Your task to perform on an android device: turn on the 12-hour format for clock Image 0: 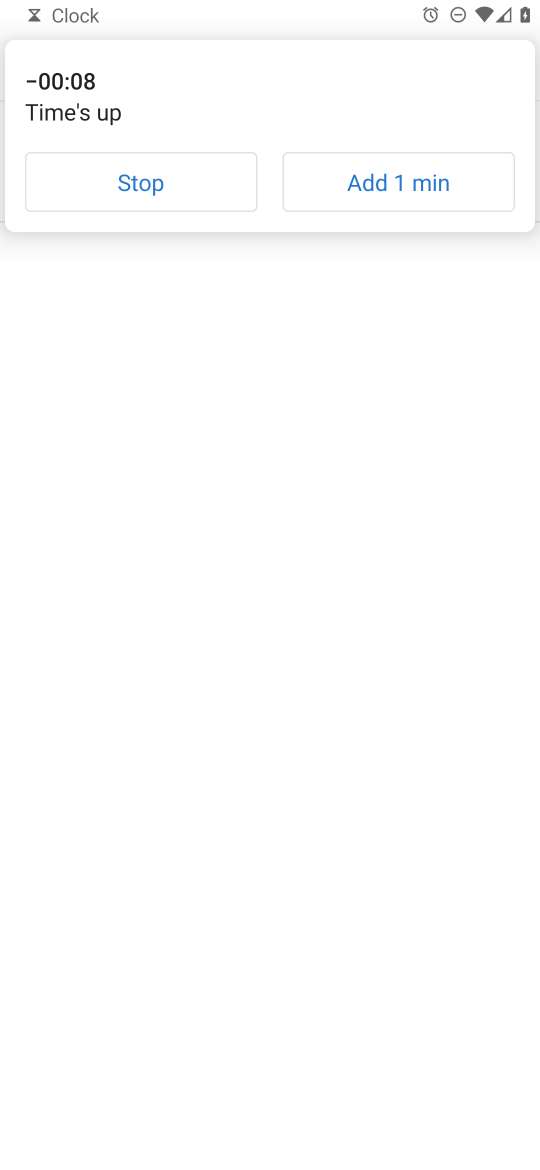
Step 0: press home button
Your task to perform on an android device: turn on the 12-hour format for clock Image 1: 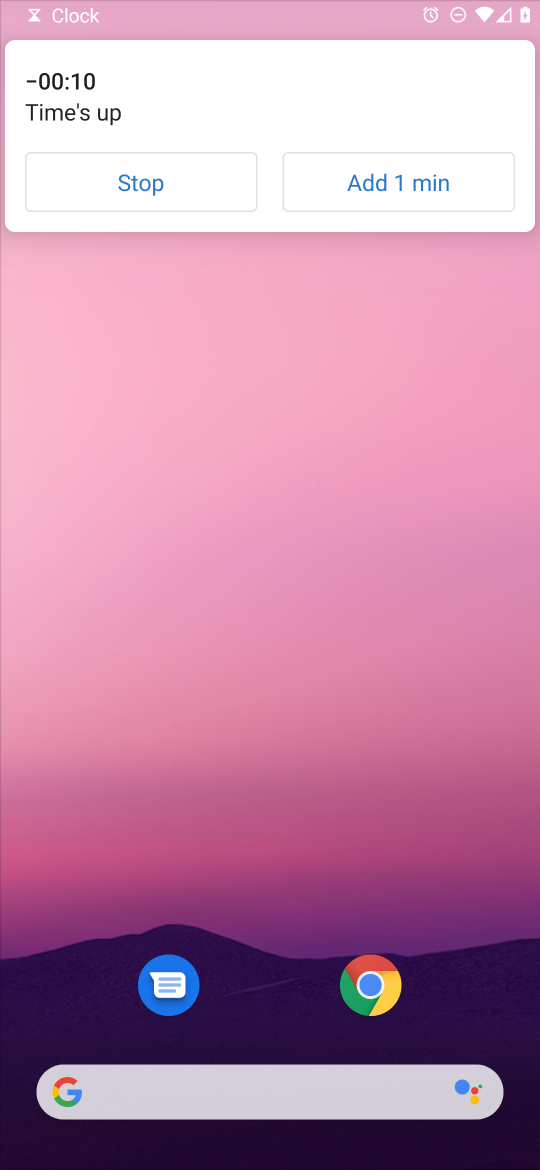
Step 1: click (182, 178)
Your task to perform on an android device: turn on the 12-hour format for clock Image 2: 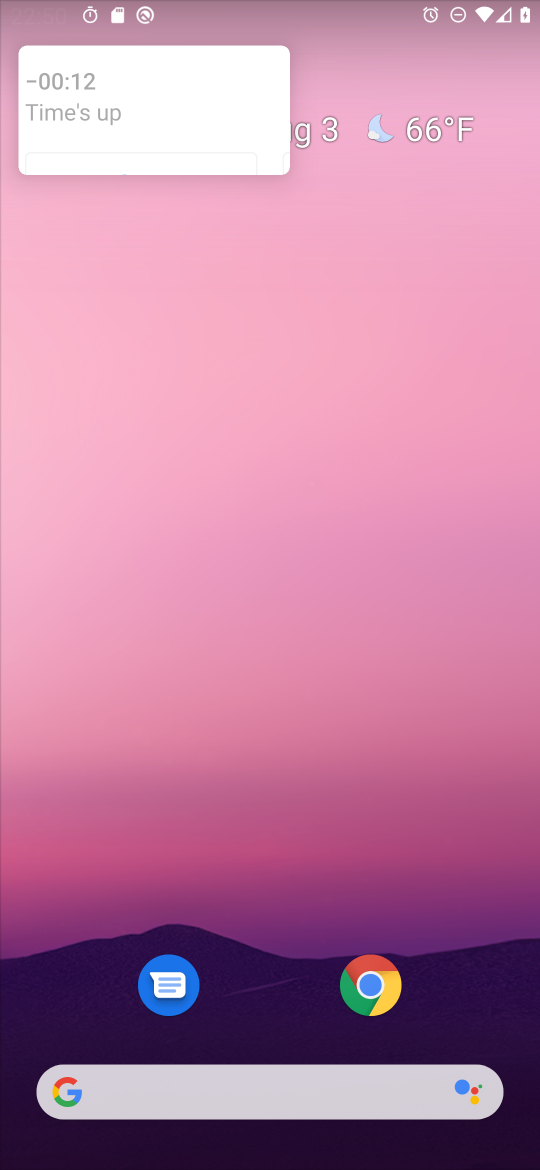
Step 2: drag from (236, 962) to (236, 196)
Your task to perform on an android device: turn on the 12-hour format for clock Image 3: 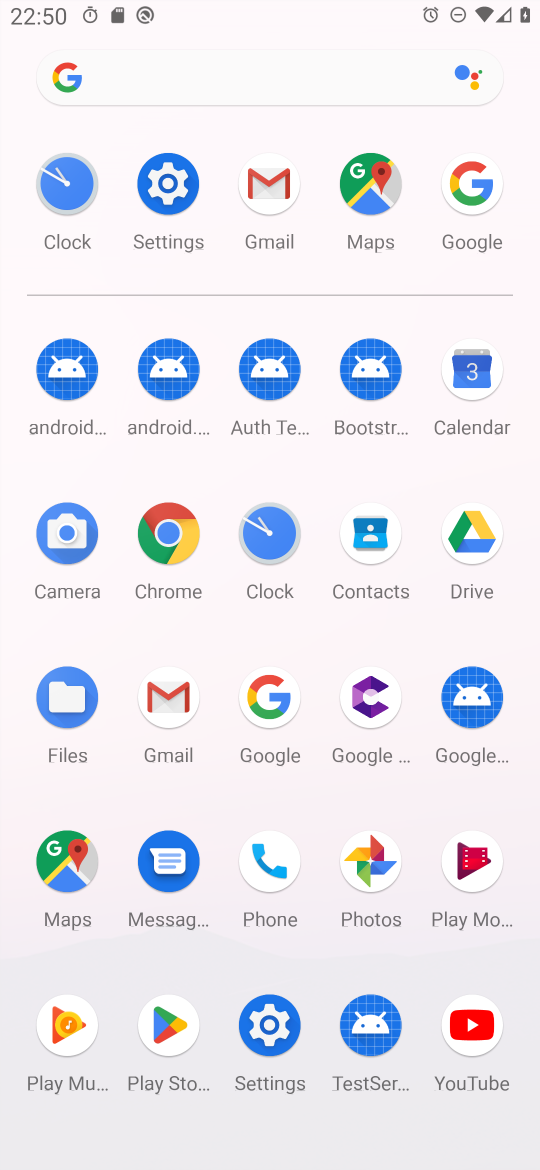
Step 3: click (60, 166)
Your task to perform on an android device: turn on the 12-hour format for clock Image 4: 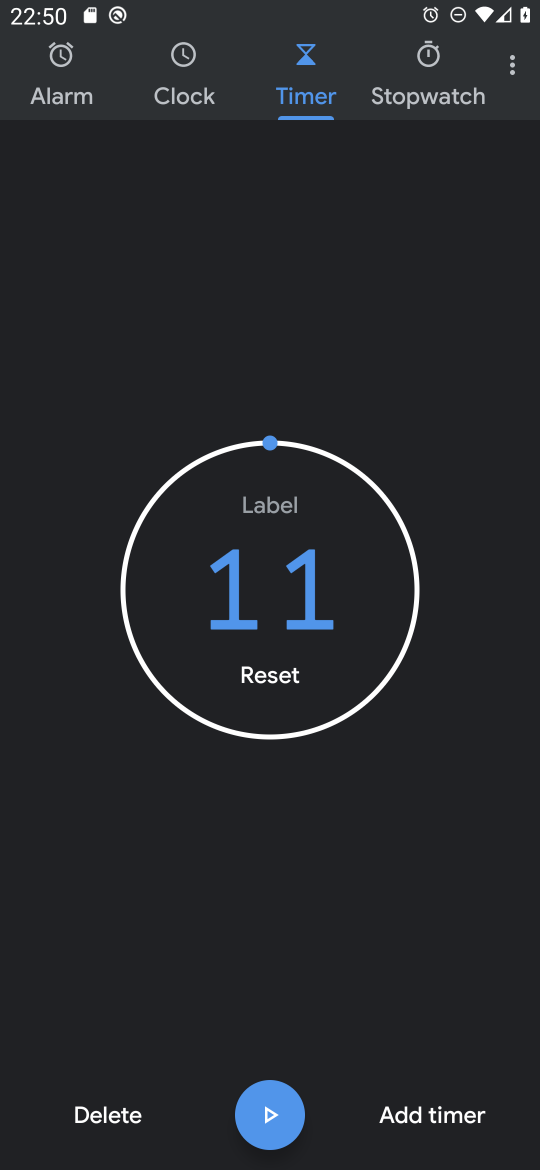
Step 4: click (501, 57)
Your task to perform on an android device: turn on the 12-hour format for clock Image 5: 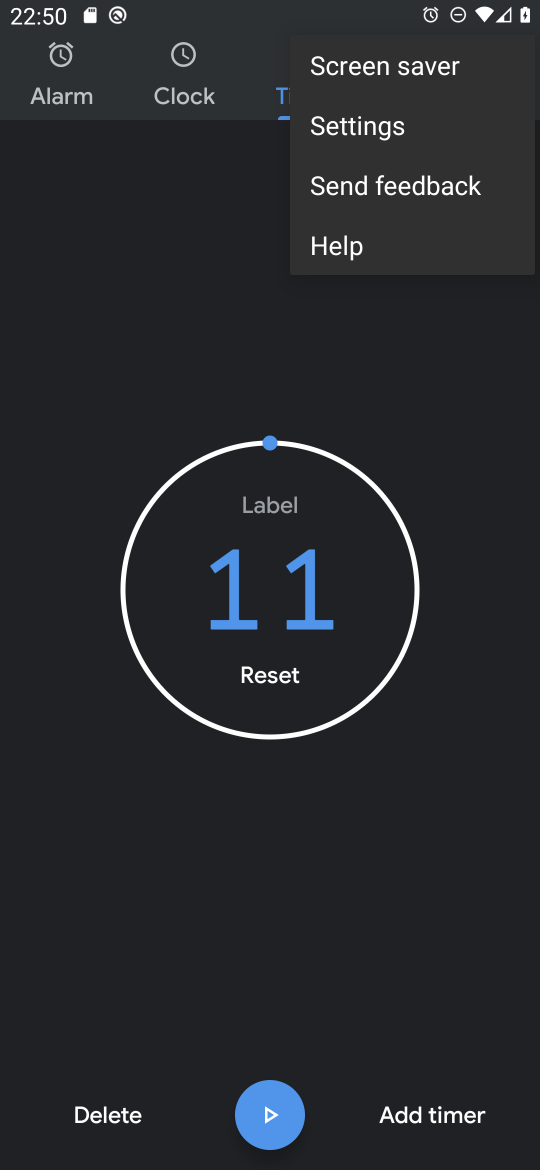
Step 5: click (402, 117)
Your task to perform on an android device: turn on the 12-hour format for clock Image 6: 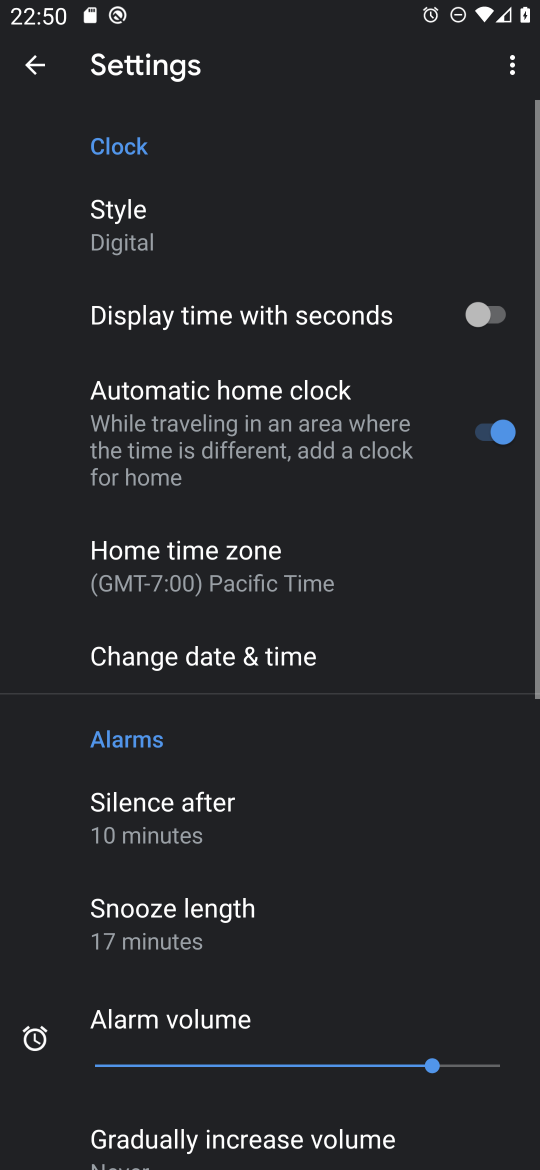
Step 6: click (229, 668)
Your task to perform on an android device: turn on the 12-hour format for clock Image 7: 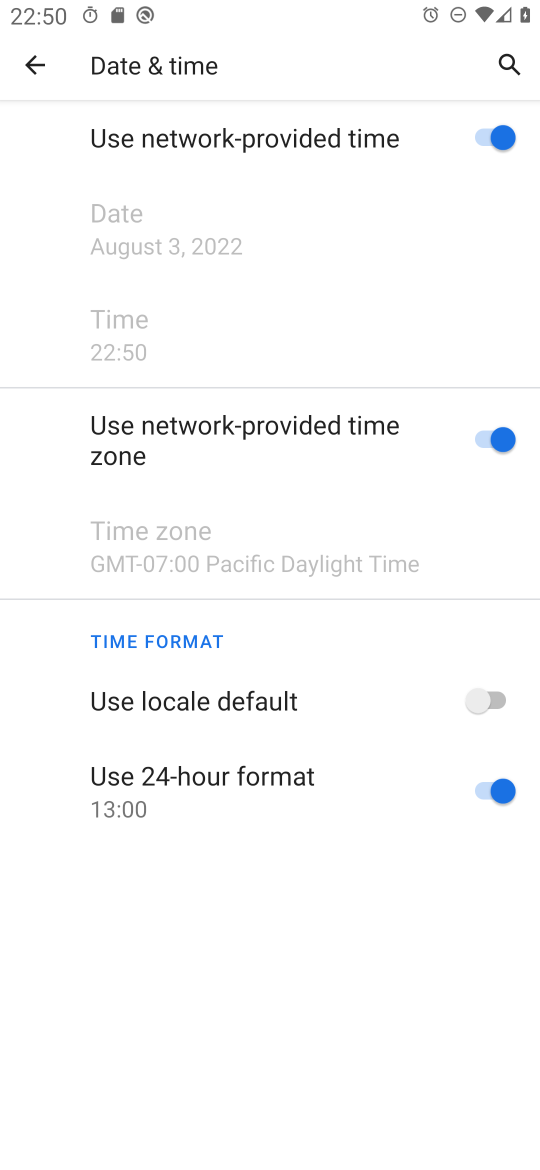
Step 7: click (491, 700)
Your task to perform on an android device: turn on the 12-hour format for clock Image 8: 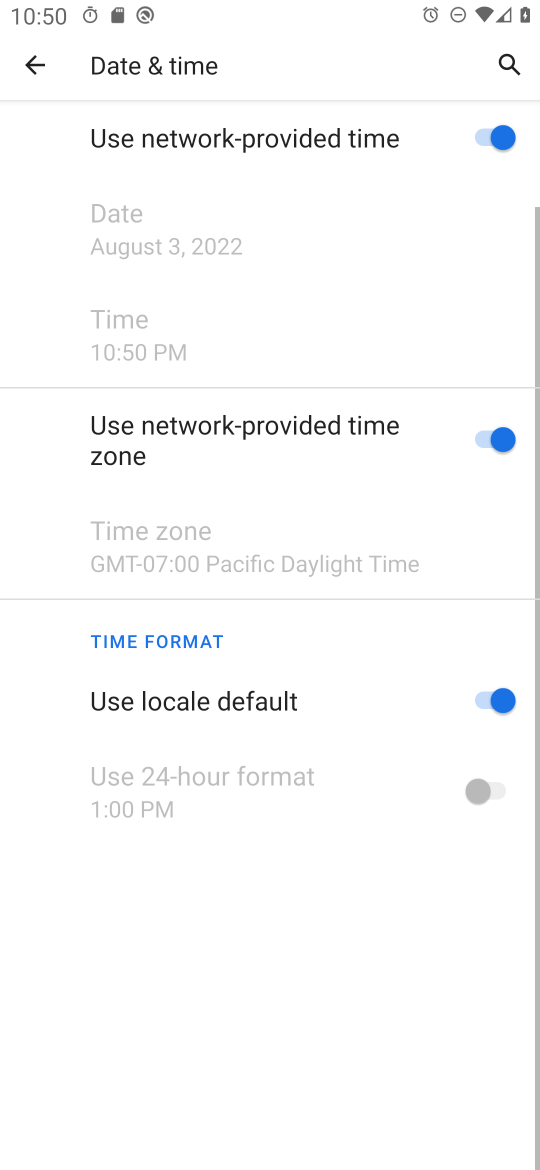
Step 8: task complete